Your task to perform on an android device: Do I have any events this weekend? Image 0: 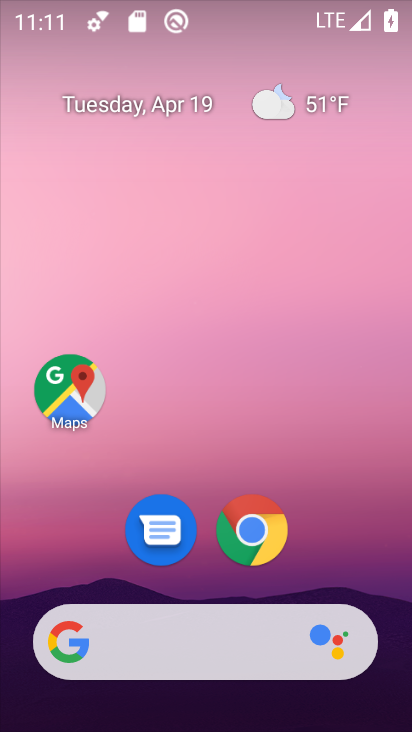
Step 0: drag from (170, 644) to (342, 20)
Your task to perform on an android device: Do I have any events this weekend? Image 1: 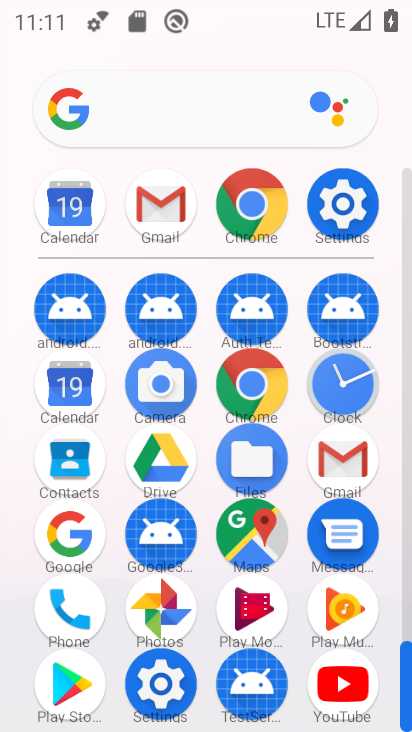
Step 1: click (79, 387)
Your task to perform on an android device: Do I have any events this weekend? Image 2: 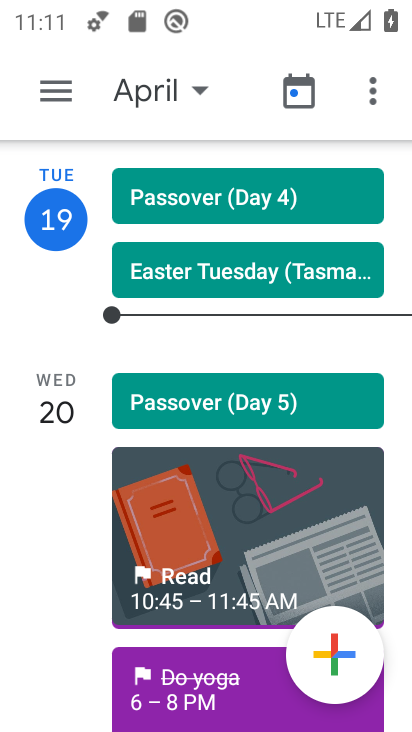
Step 2: click (165, 86)
Your task to perform on an android device: Do I have any events this weekend? Image 3: 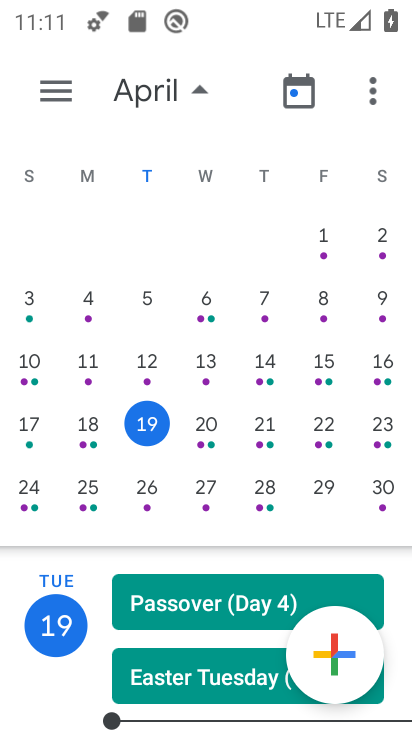
Step 3: click (386, 431)
Your task to perform on an android device: Do I have any events this weekend? Image 4: 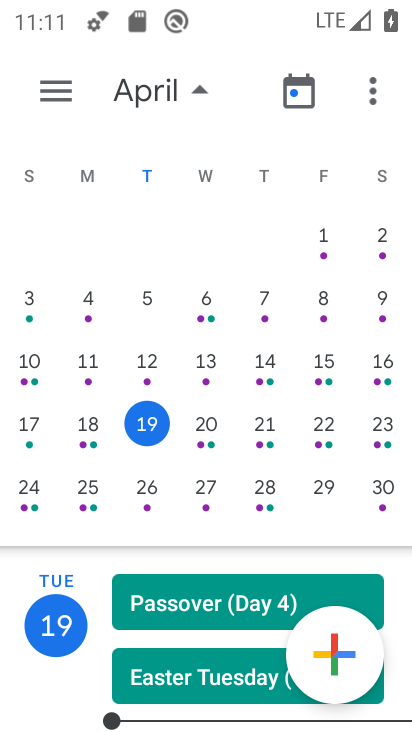
Step 4: click (382, 422)
Your task to perform on an android device: Do I have any events this weekend? Image 5: 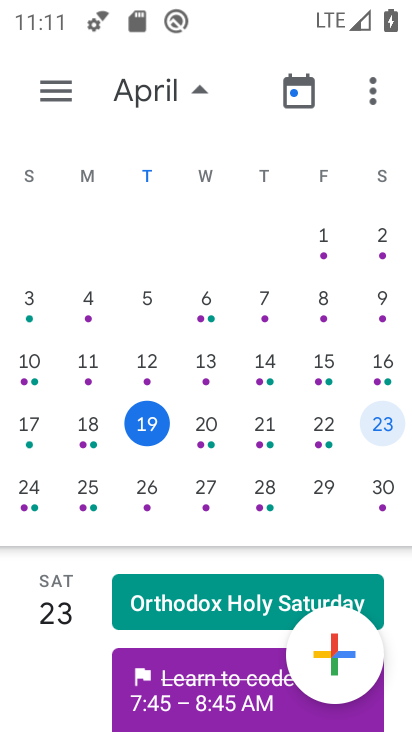
Step 5: click (64, 94)
Your task to perform on an android device: Do I have any events this weekend? Image 6: 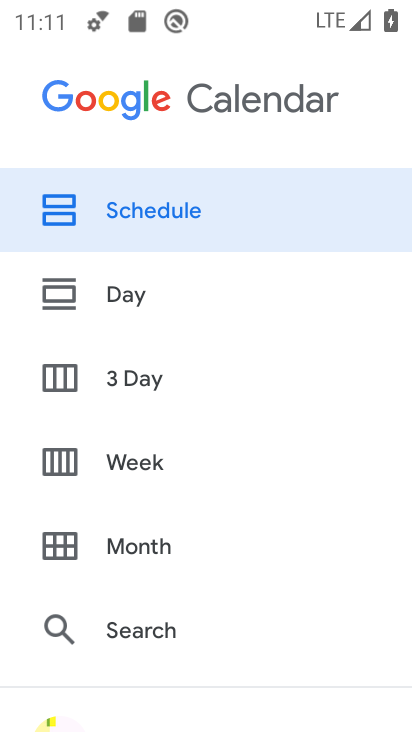
Step 6: click (124, 214)
Your task to perform on an android device: Do I have any events this weekend? Image 7: 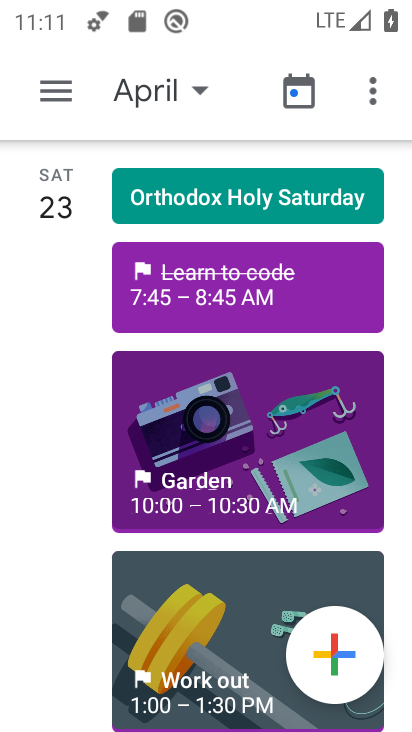
Step 7: click (244, 294)
Your task to perform on an android device: Do I have any events this weekend? Image 8: 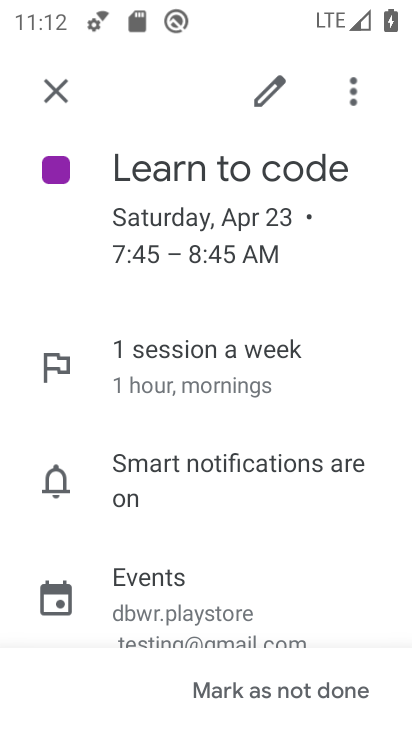
Step 8: task complete